Your task to perform on an android device: search for starred emails in the gmail app Image 0: 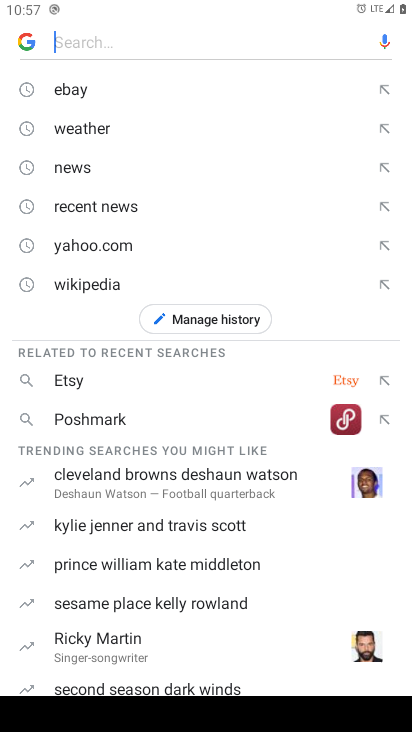
Step 0: press home button
Your task to perform on an android device: search for starred emails in the gmail app Image 1: 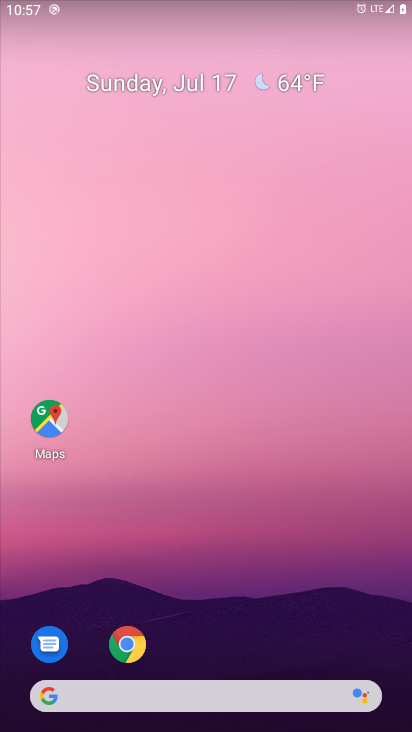
Step 1: drag from (268, 571) to (208, 55)
Your task to perform on an android device: search for starred emails in the gmail app Image 2: 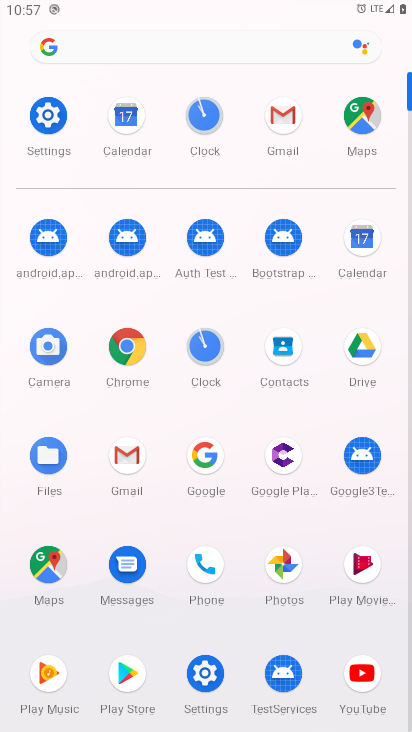
Step 2: click (278, 116)
Your task to perform on an android device: search for starred emails in the gmail app Image 3: 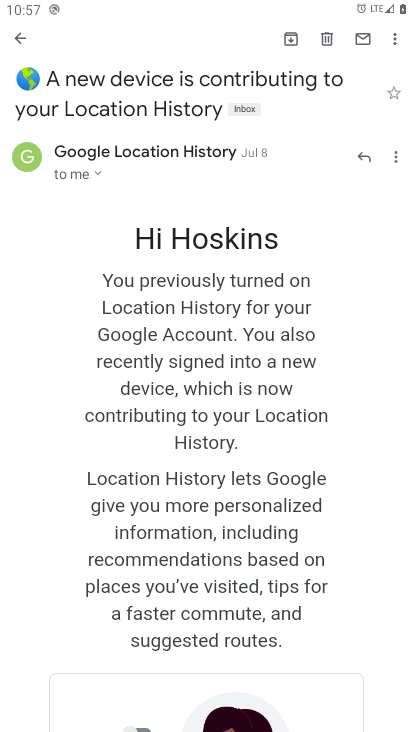
Step 3: click (21, 41)
Your task to perform on an android device: search for starred emails in the gmail app Image 4: 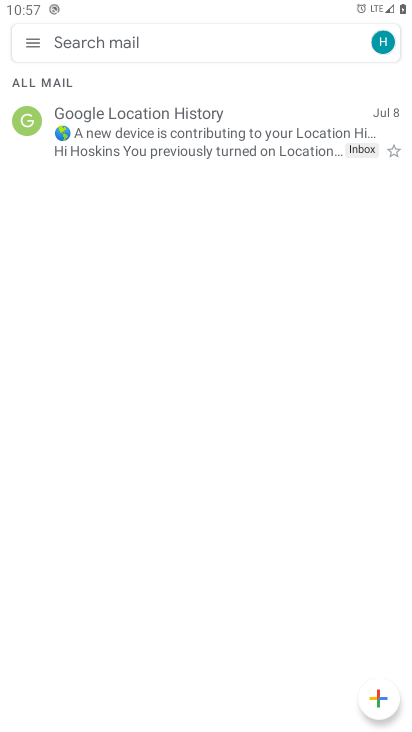
Step 4: click (29, 44)
Your task to perform on an android device: search for starred emails in the gmail app Image 5: 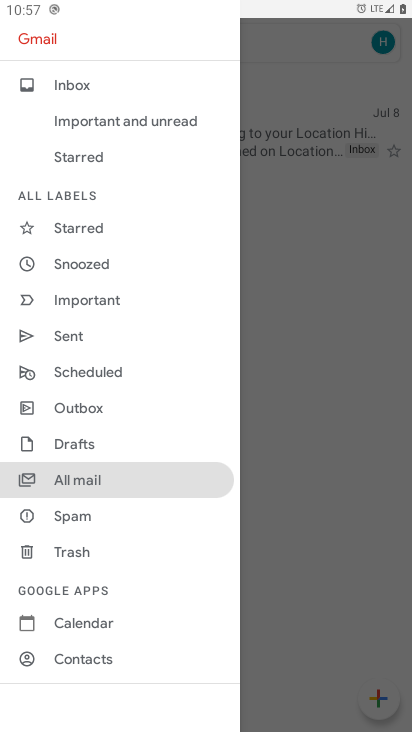
Step 5: click (69, 222)
Your task to perform on an android device: search for starred emails in the gmail app Image 6: 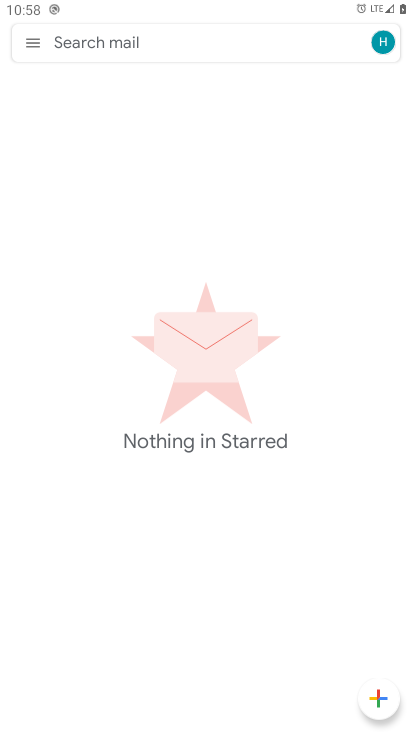
Step 6: task complete